Your task to perform on an android device: check data usage Image 0: 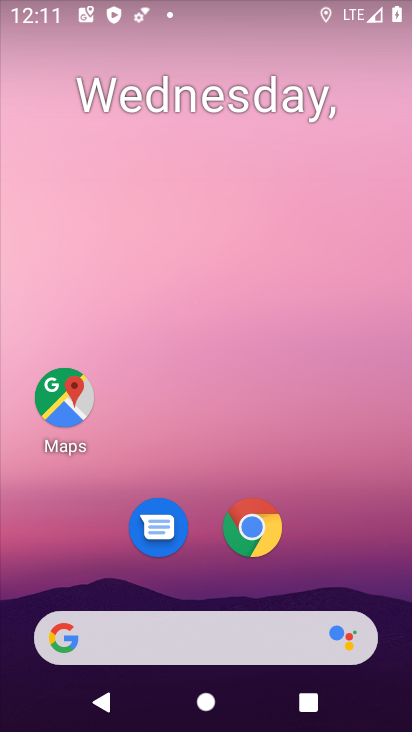
Step 0: drag from (175, 613) to (174, 10)
Your task to perform on an android device: check data usage Image 1: 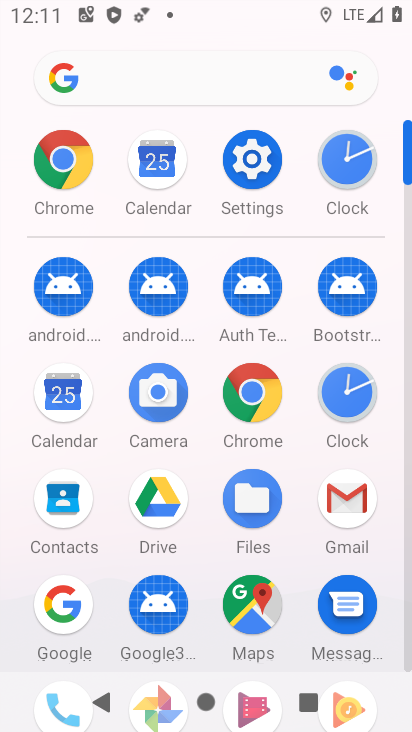
Step 1: click (268, 149)
Your task to perform on an android device: check data usage Image 2: 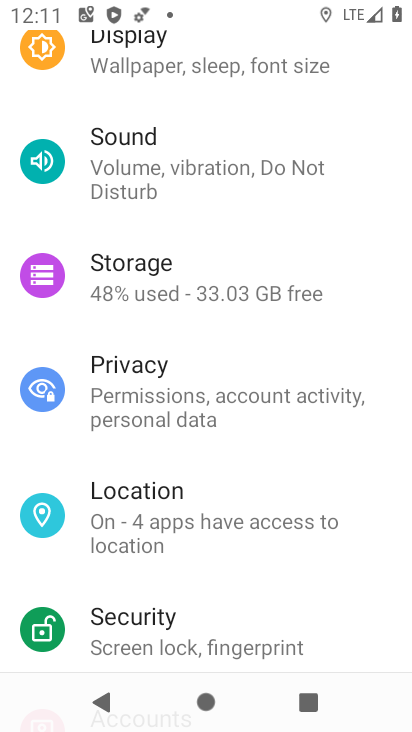
Step 2: drag from (187, 158) to (237, 681)
Your task to perform on an android device: check data usage Image 3: 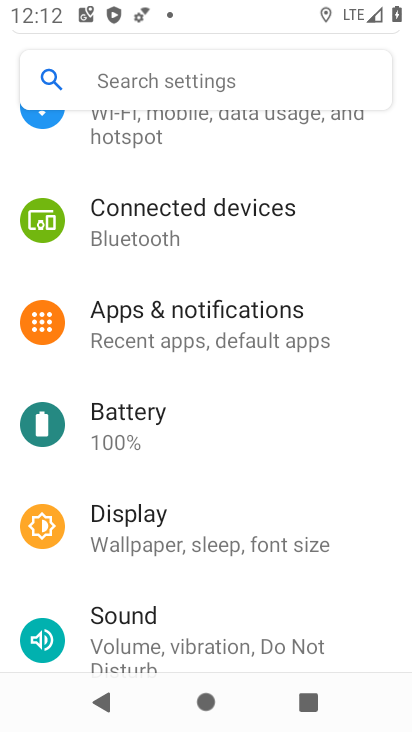
Step 3: drag from (172, 196) to (246, 671)
Your task to perform on an android device: check data usage Image 4: 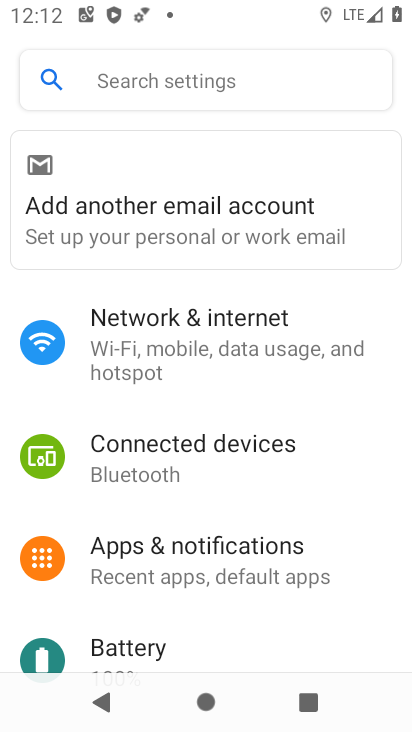
Step 4: click (203, 340)
Your task to perform on an android device: check data usage Image 5: 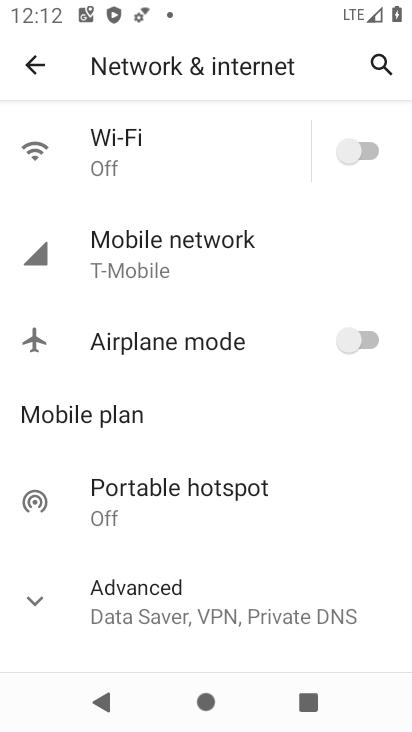
Step 5: click (138, 237)
Your task to perform on an android device: check data usage Image 6: 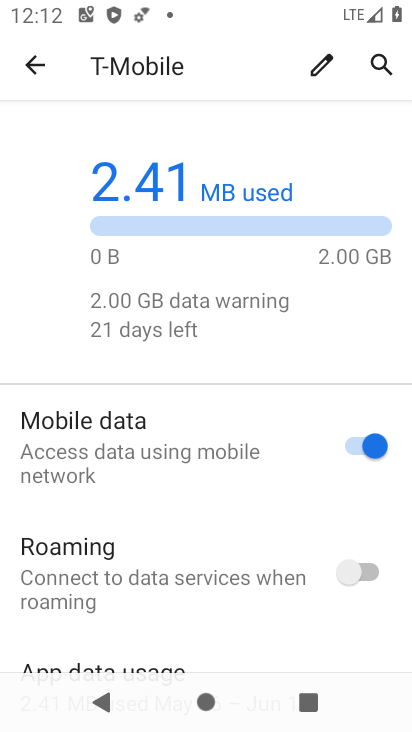
Step 6: task complete